Your task to perform on an android device: toggle show notifications on the lock screen Image 0: 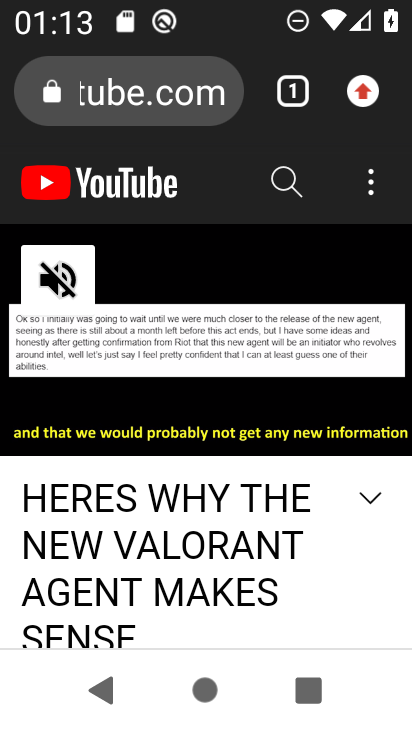
Step 0: press home button
Your task to perform on an android device: toggle show notifications on the lock screen Image 1: 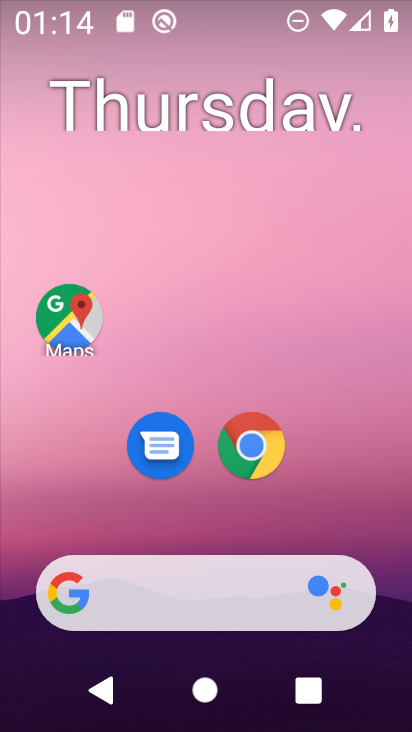
Step 1: drag from (223, 407) to (197, 42)
Your task to perform on an android device: toggle show notifications on the lock screen Image 2: 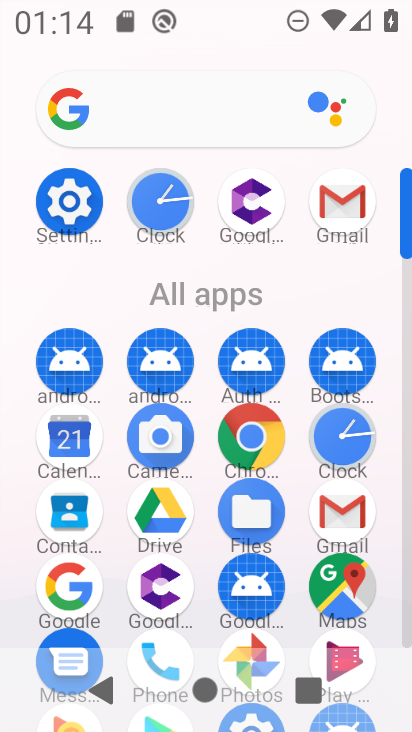
Step 2: click (64, 210)
Your task to perform on an android device: toggle show notifications on the lock screen Image 3: 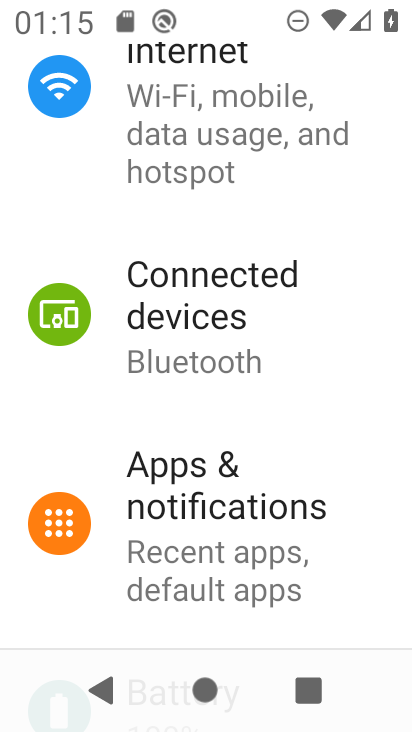
Step 3: click (240, 546)
Your task to perform on an android device: toggle show notifications on the lock screen Image 4: 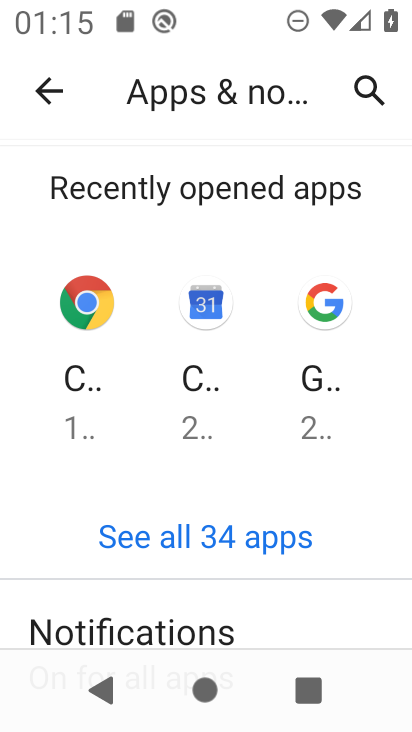
Step 4: drag from (147, 570) to (163, 118)
Your task to perform on an android device: toggle show notifications on the lock screen Image 5: 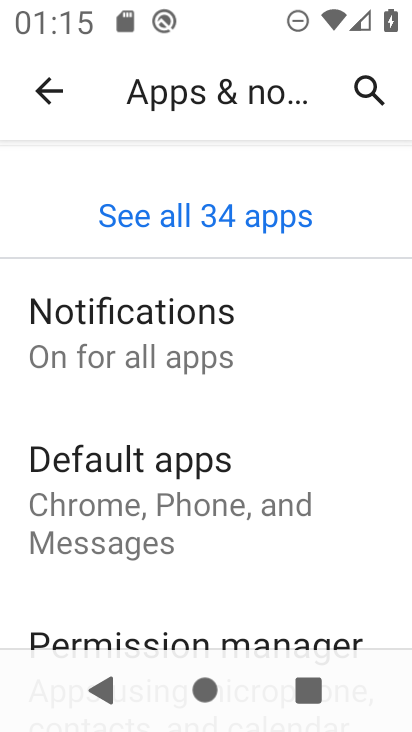
Step 5: click (187, 329)
Your task to perform on an android device: toggle show notifications on the lock screen Image 6: 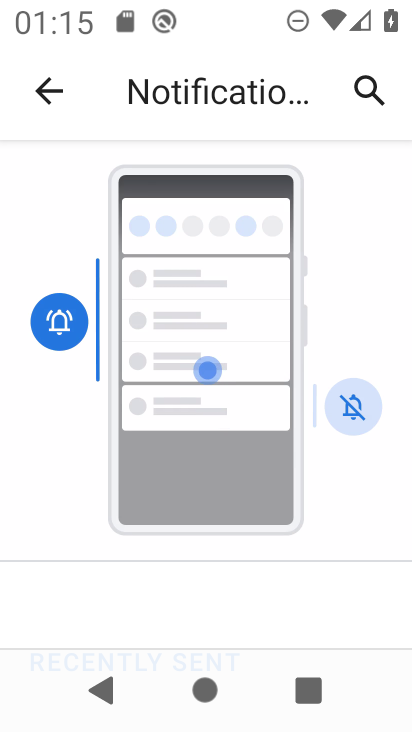
Step 6: drag from (170, 587) to (205, 259)
Your task to perform on an android device: toggle show notifications on the lock screen Image 7: 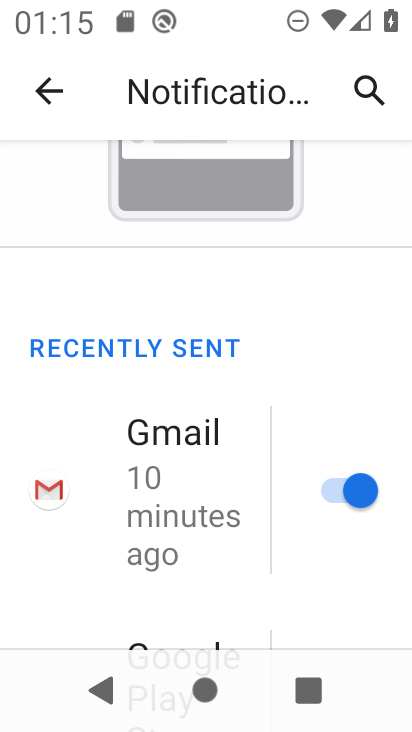
Step 7: drag from (136, 605) to (176, 331)
Your task to perform on an android device: toggle show notifications on the lock screen Image 8: 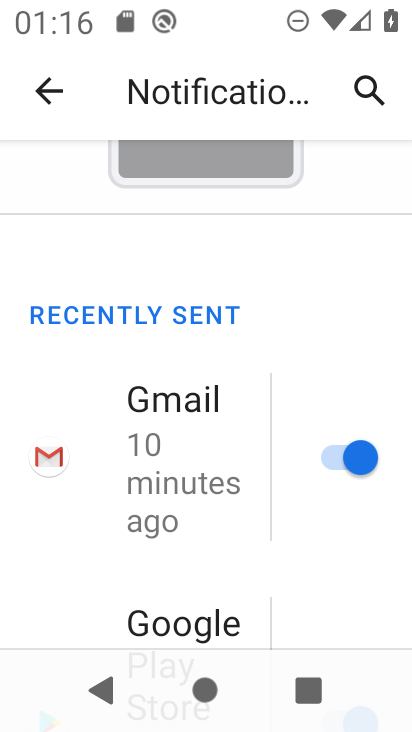
Step 8: drag from (117, 616) to (119, 104)
Your task to perform on an android device: toggle show notifications on the lock screen Image 9: 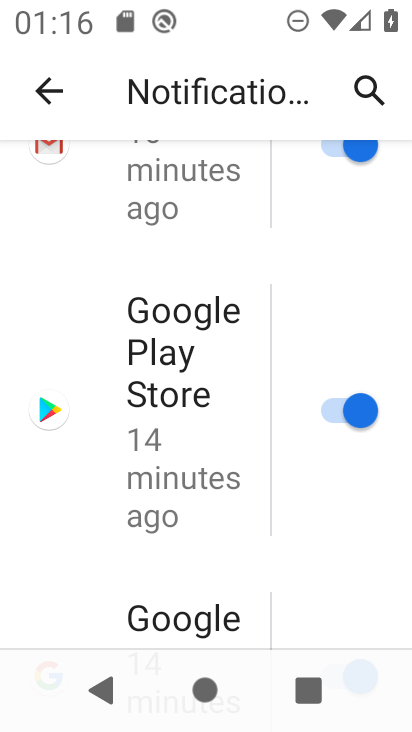
Step 9: drag from (148, 563) to (210, 179)
Your task to perform on an android device: toggle show notifications on the lock screen Image 10: 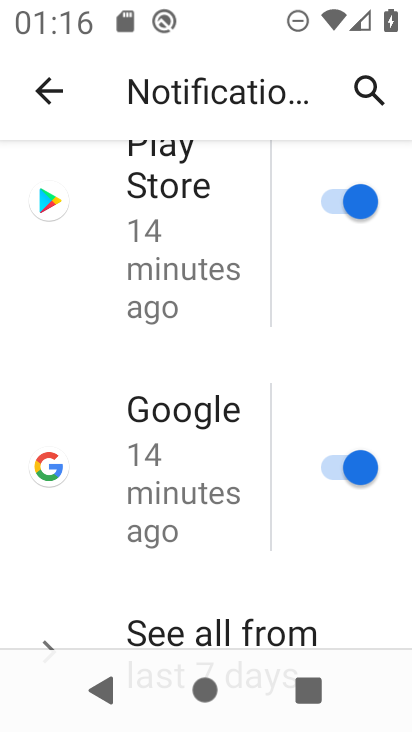
Step 10: drag from (144, 589) to (208, 22)
Your task to perform on an android device: toggle show notifications on the lock screen Image 11: 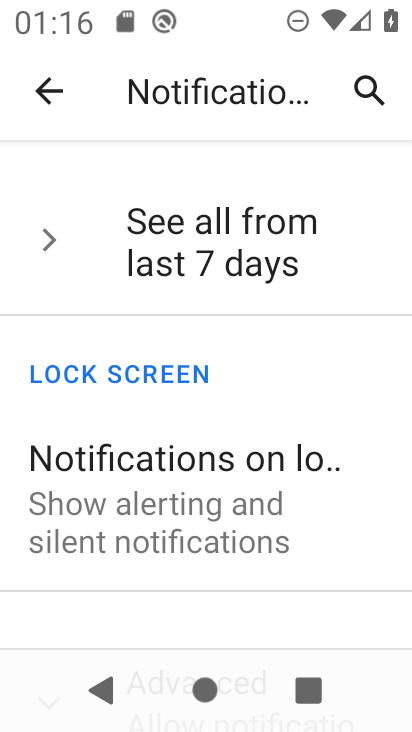
Step 11: drag from (147, 593) to (175, 207)
Your task to perform on an android device: toggle show notifications on the lock screen Image 12: 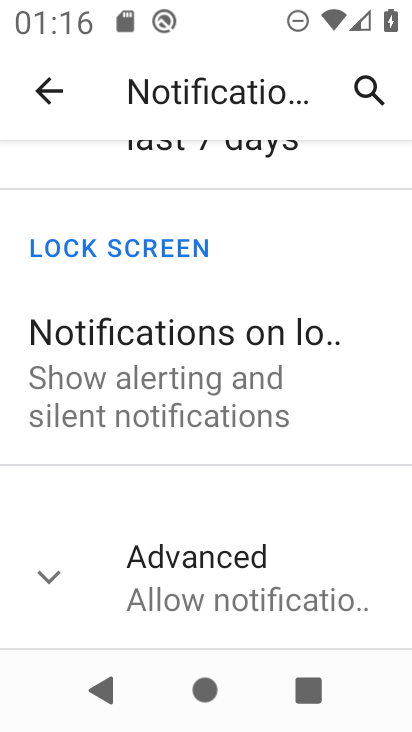
Step 12: click (242, 330)
Your task to perform on an android device: toggle show notifications on the lock screen Image 13: 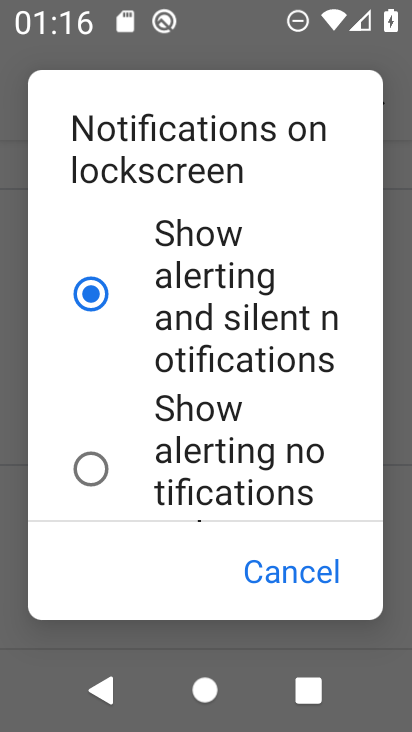
Step 13: click (289, 463)
Your task to perform on an android device: toggle show notifications on the lock screen Image 14: 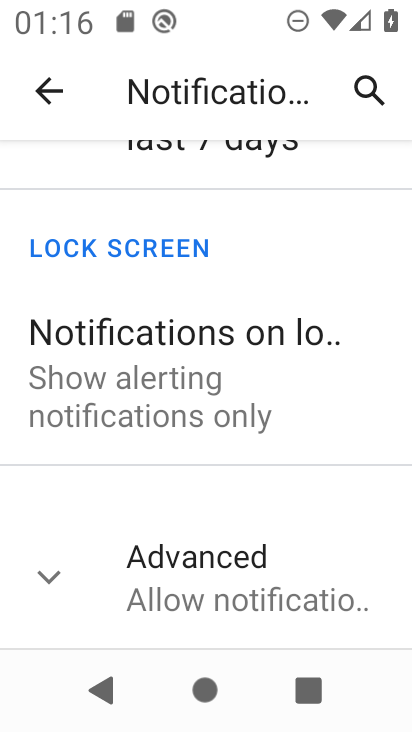
Step 14: task complete